Your task to perform on an android device: open chrome and create a bookmark for the current page Image 0: 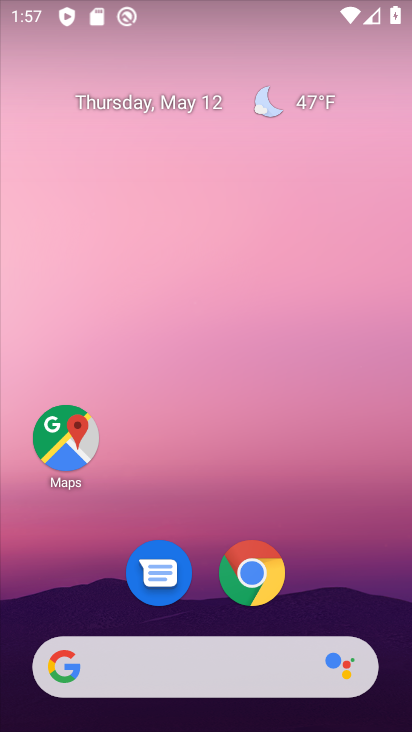
Step 0: click (250, 590)
Your task to perform on an android device: open chrome and create a bookmark for the current page Image 1: 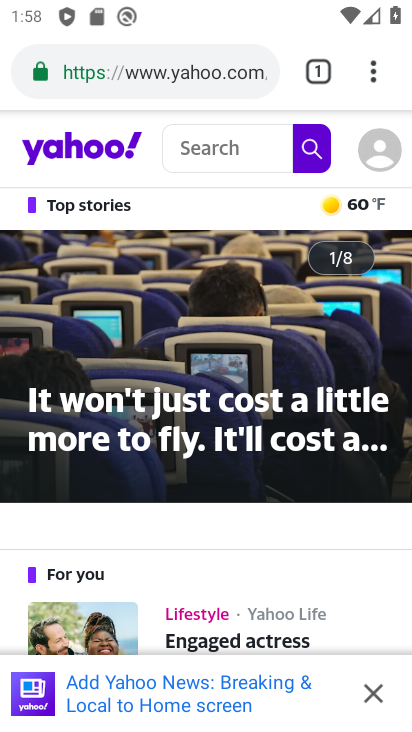
Step 1: click (374, 61)
Your task to perform on an android device: open chrome and create a bookmark for the current page Image 2: 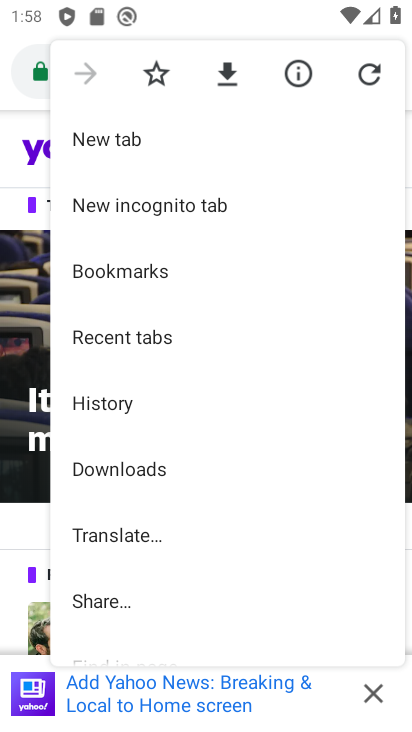
Step 2: click (156, 73)
Your task to perform on an android device: open chrome and create a bookmark for the current page Image 3: 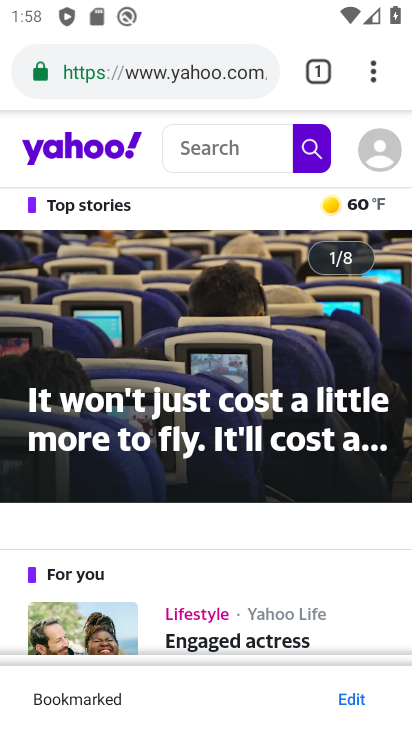
Step 3: task complete